Your task to perform on an android device: Add asus rog to the cart on ebay Image 0: 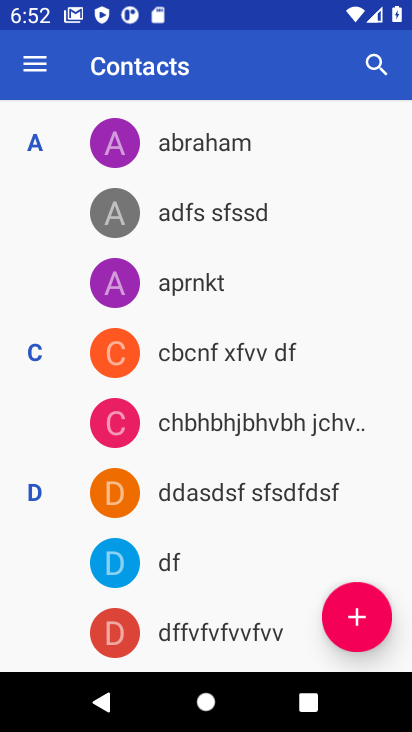
Step 0: press home button
Your task to perform on an android device: Add asus rog to the cart on ebay Image 1: 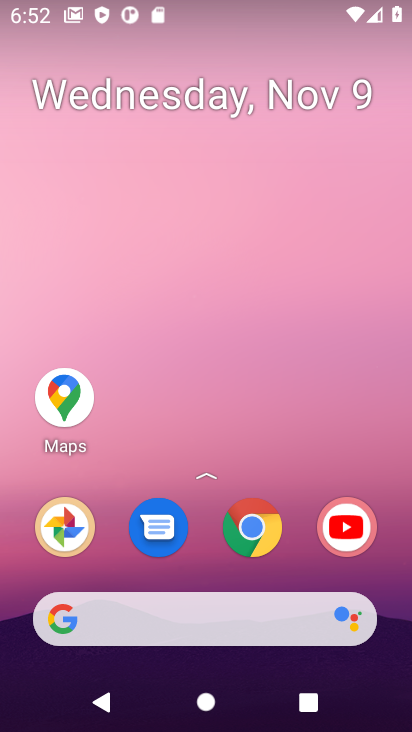
Step 1: click (249, 526)
Your task to perform on an android device: Add asus rog to the cart on ebay Image 2: 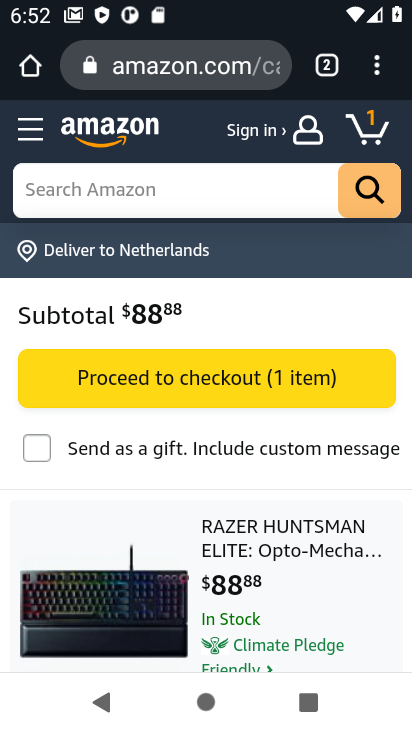
Step 2: click (176, 54)
Your task to perform on an android device: Add asus rog to the cart on ebay Image 3: 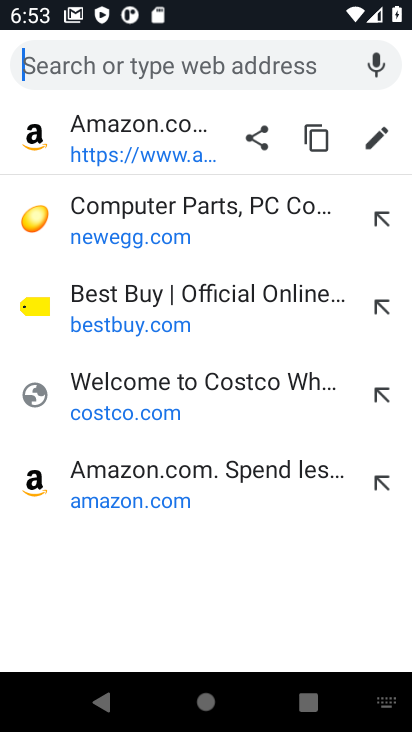
Step 3: type "ebay.com"
Your task to perform on an android device: Add asus rog to the cart on ebay Image 4: 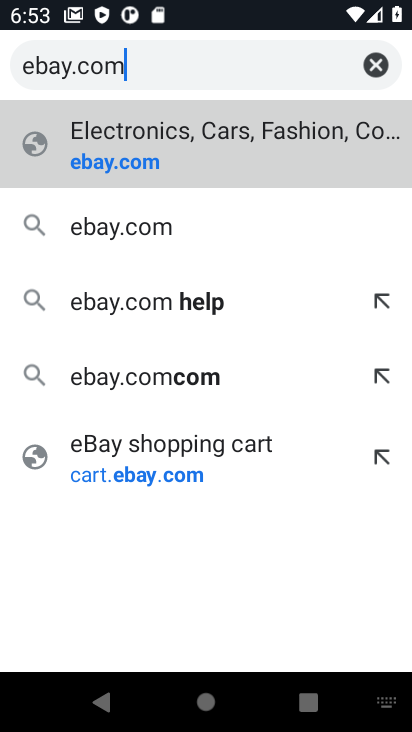
Step 4: click (110, 172)
Your task to perform on an android device: Add asus rog to the cart on ebay Image 5: 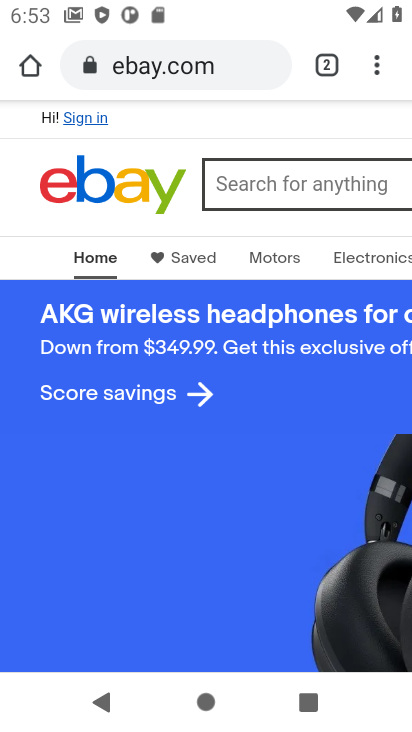
Step 5: click (288, 183)
Your task to perform on an android device: Add asus rog to the cart on ebay Image 6: 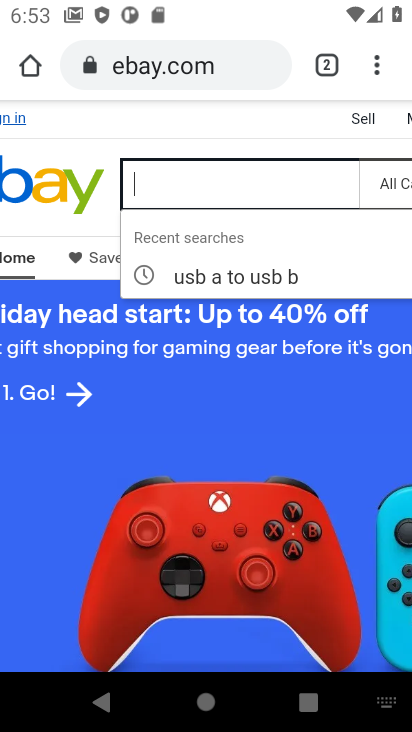
Step 6: type "asus rog"
Your task to perform on an android device: Add asus rog to the cart on ebay Image 7: 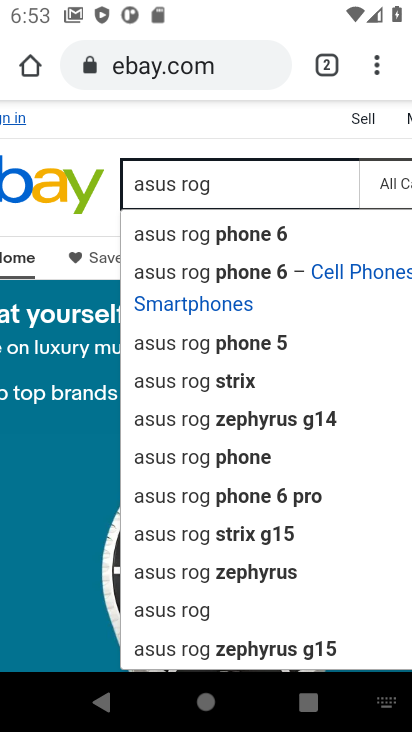
Step 7: click (161, 617)
Your task to perform on an android device: Add asus rog to the cart on ebay Image 8: 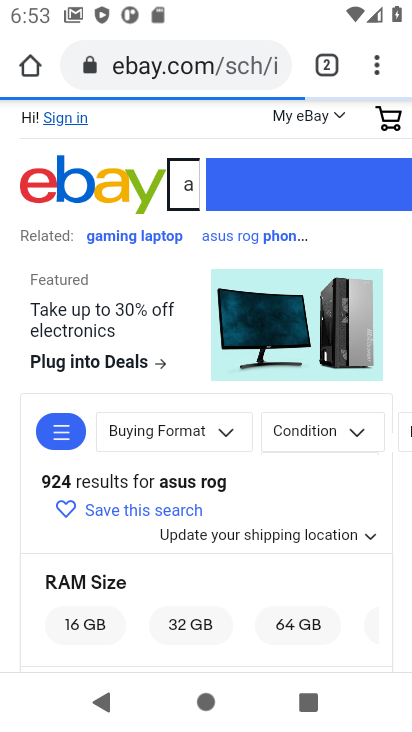
Step 8: drag from (144, 577) to (151, 249)
Your task to perform on an android device: Add asus rog to the cart on ebay Image 9: 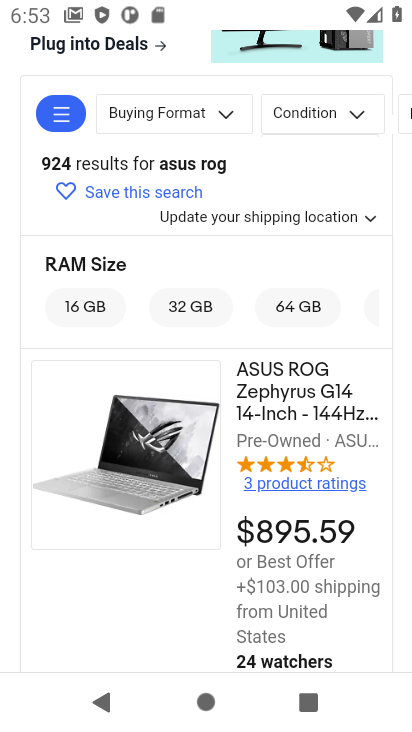
Step 9: click (167, 468)
Your task to perform on an android device: Add asus rog to the cart on ebay Image 10: 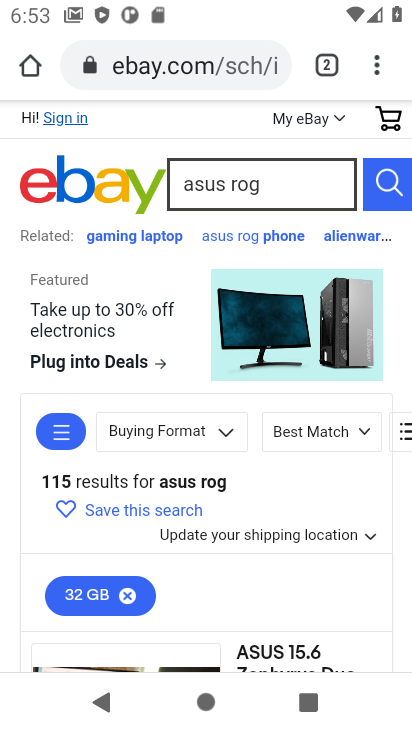
Step 10: drag from (167, 553) to (179, 308)
Your task to perform on an android device: Add asus rog to the cart on ebay Image 11: 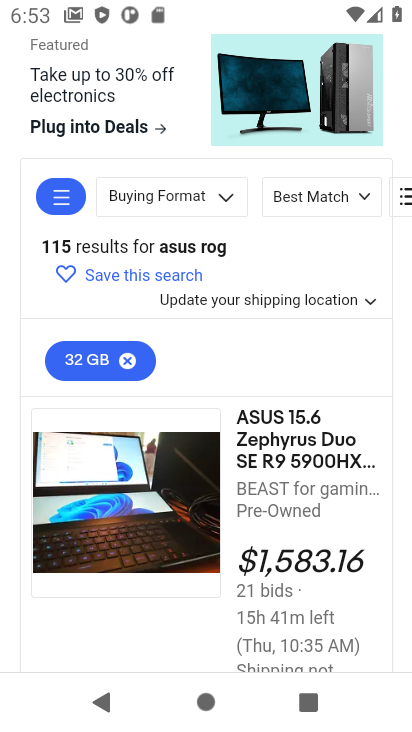
Step 11: drag from (149, 506) to (154, 268)
Your task to perform on an android device: Add asus rog to the cart on ebay Image 12: 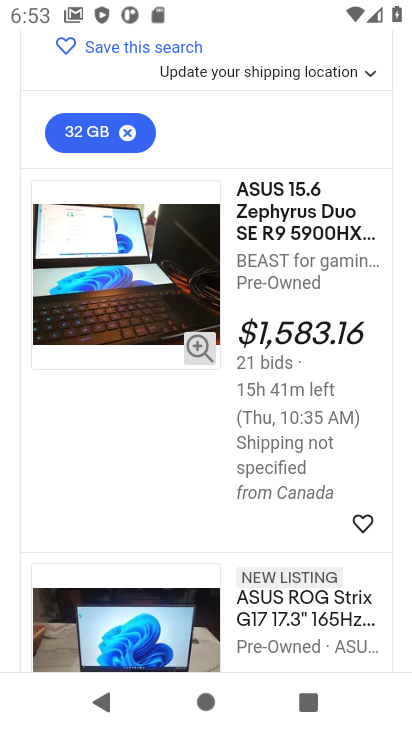
Step 12: drag from (158, 335) to (132, 620)
Your task to perform on an android device: Add asus rog to the cart on ebay Image 13: 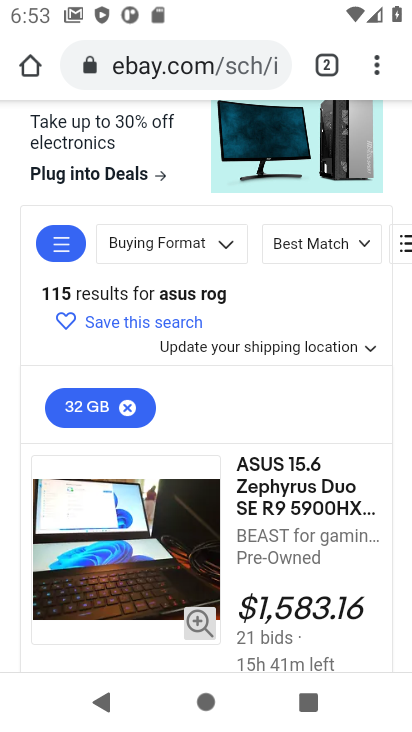
Step 13: drag from (175, 288) to (148, 253)
Your task to perform on an android device: Add asus rog to the cart on ebay Image 14: 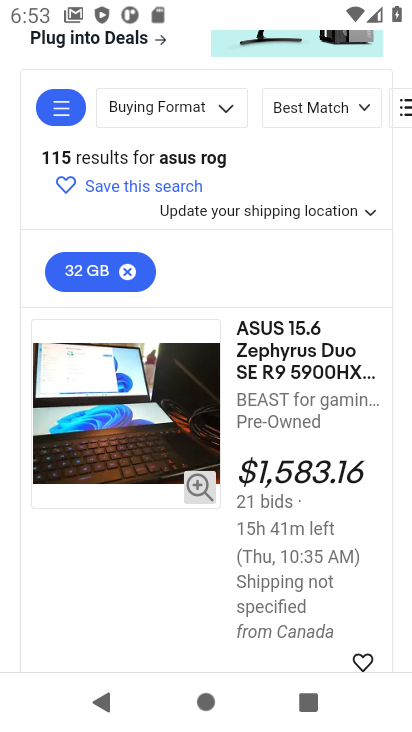
Step 14: click (115, 446)
Your task to perform on an android device: Add asus rog to the cart on ebay Image 15: 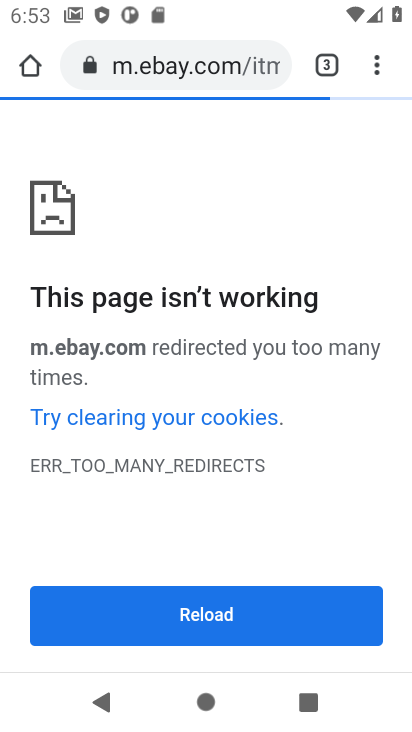
Step 15: task complete